Your task to perform on an android device: Go to calendar. Show me events next week Image 0: 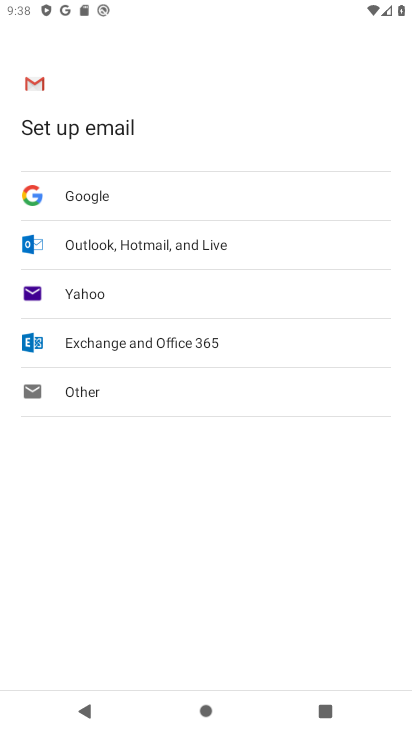
Step 0: press home button
Your task to perform on an android device: Go to calendar. Show me events next week Image 1: 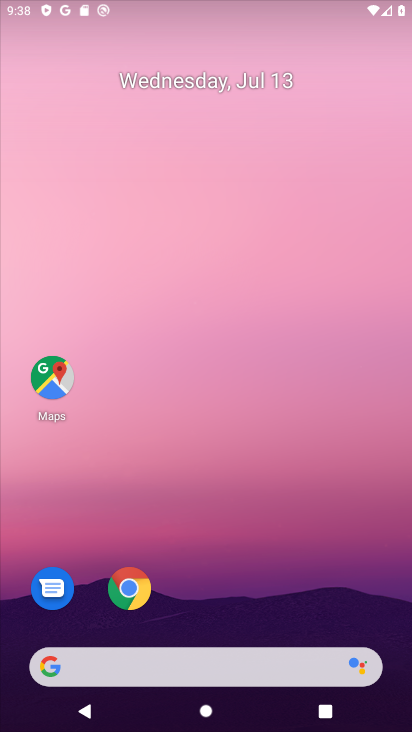
Step 1: drag from (219, 604) to (260, 82)
Your task to perform on an android device: Go to calendar. Show me events next week Image 2: 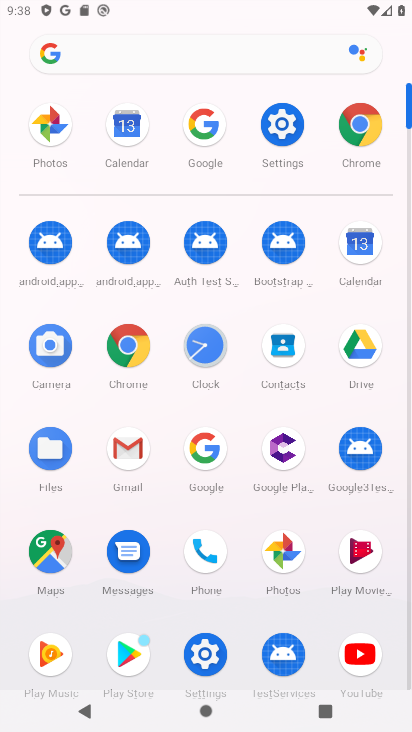
Step 2: click (360, 246)
Your task to perform on an android device: Go to calendar. Show me events next week Image 3: 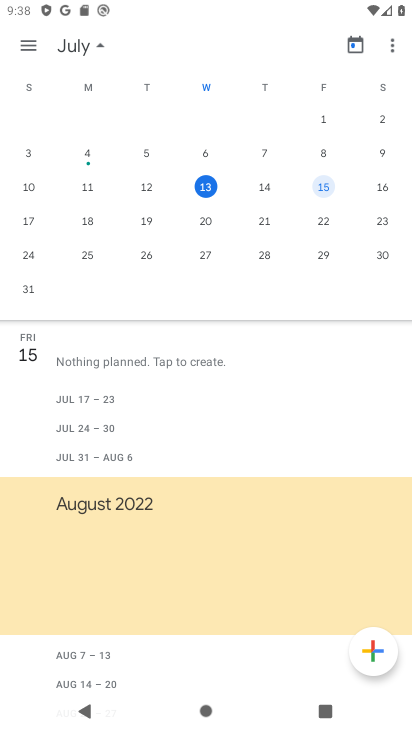
Step 3: click (275, 220)
Your task to perform on an android device: Go to calendar. Show me events next week Image 4: 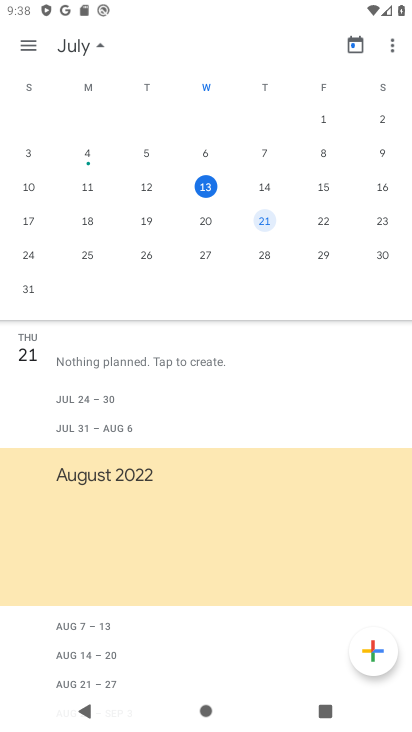
Step 4: task complete